Your task to perform on an android device: Do I have any events today? Image 0: 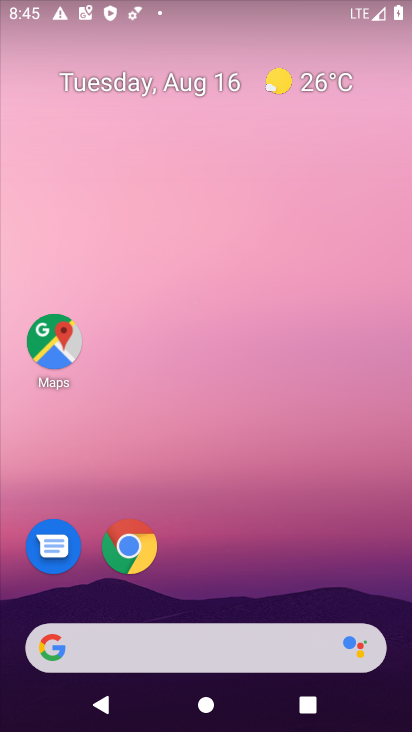
Step 0: drag from (232, 589) to (162, 7)
Your task to perform on an android device: Do I have any events today? Image 1: 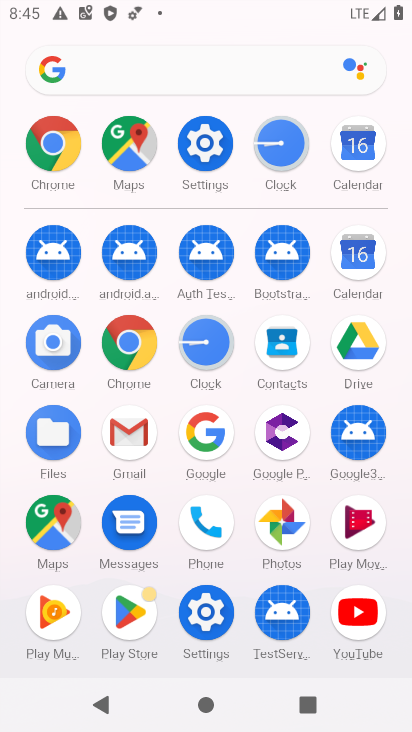
Step 1: click (351, 145)
Your task to perform on an android device: Do I have any events today? Image 2: 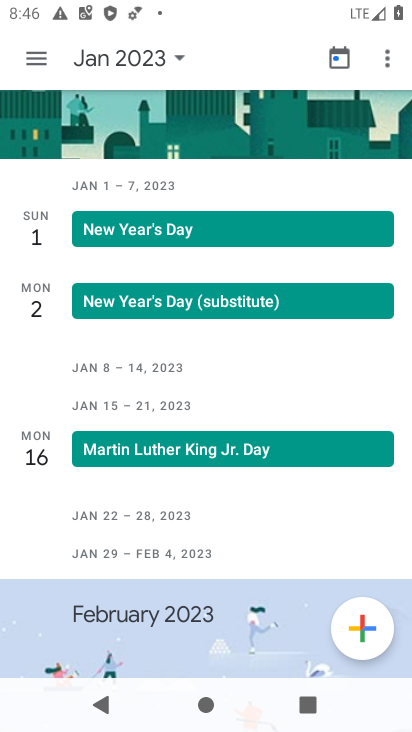
Step 2: click (38, 52)
Your task to perform on an android device: Do I have any events today? Image 3: 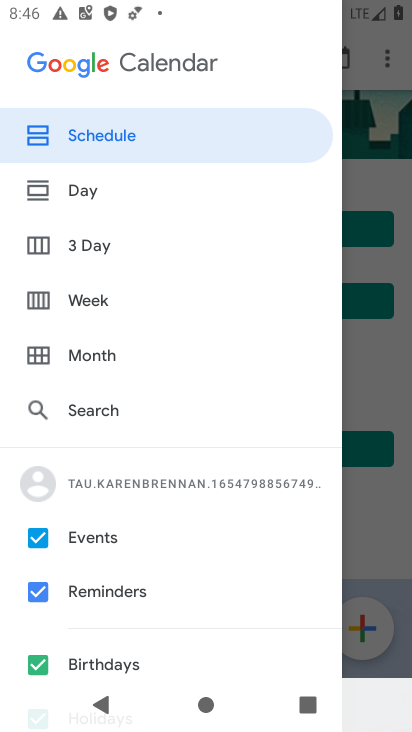
Step 3: click (32, 177)
Your task to perform on an android device: Do I have any events today? Image 4: 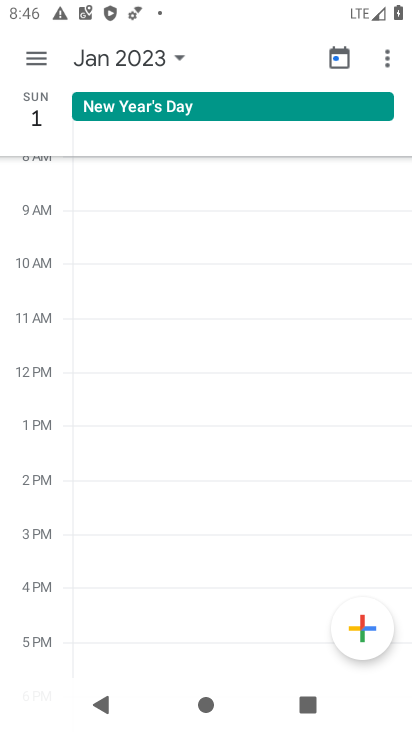
Step 4: click (32, 53)
Your task to perform on an android device: Do I have any events today? Image 5: 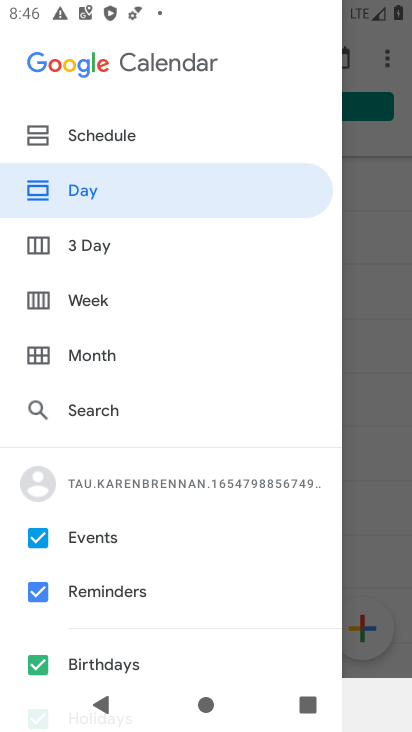
Step 5: click (36, 348)
Your task to perform on an android device: Do I have any events today? Image 6: 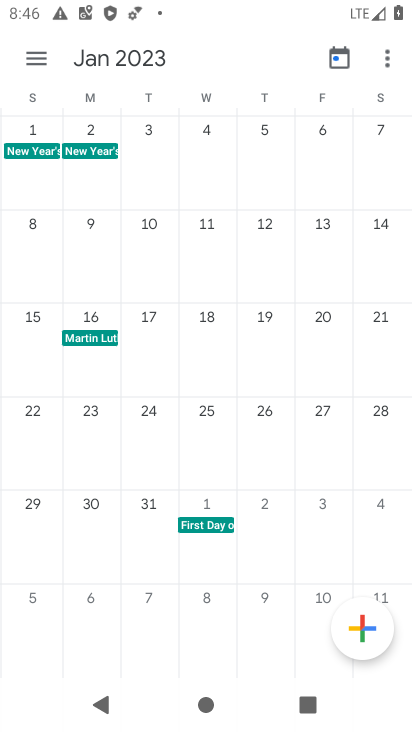
Step 6: drag from (113, 345) to (403, 362)
Your task to perform on an android device: Do I have any events today? Image 7: 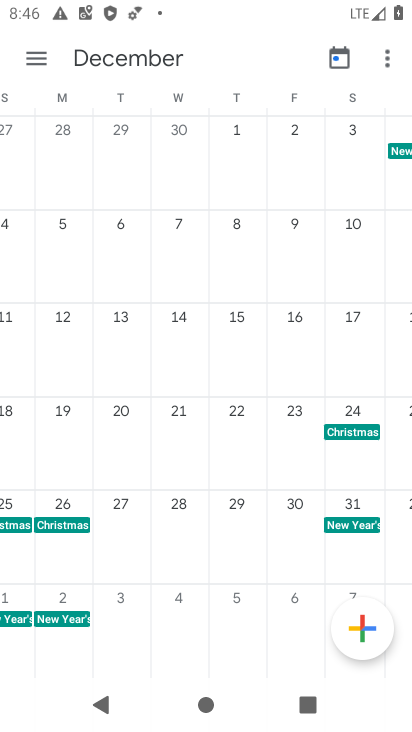
Step 7: drag from (104, 274) to (405, 327)
Your task to perform on an android device: Do I have any events today? Image 8: 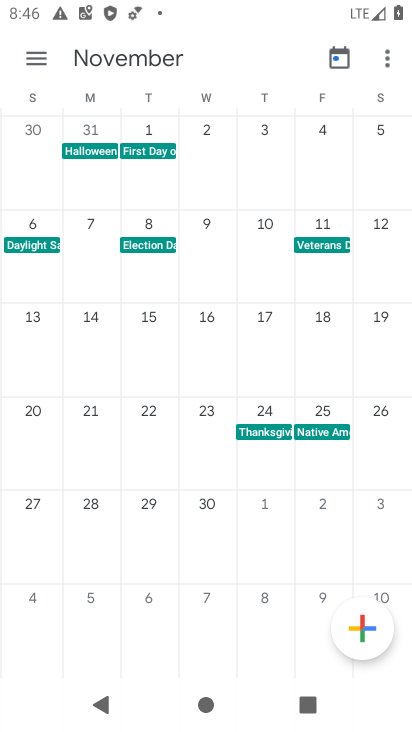
Step 8: drag from (127, 292) to (411, 344)
Your task to perform on an android device: Do I have any events today? Image 9: 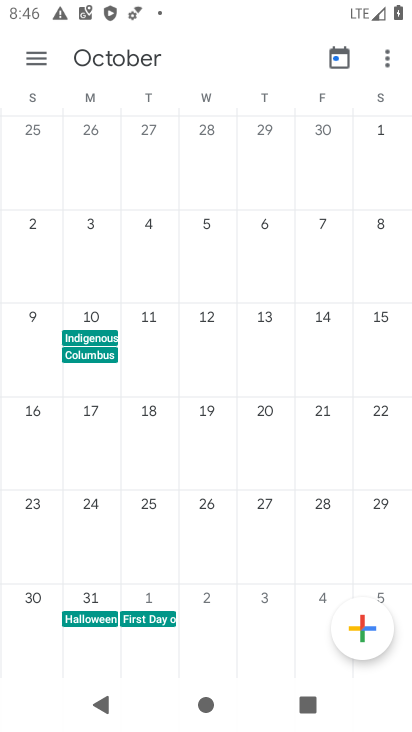
Step 9: drag from (111, 291) to (392, 317)
Your task to perform on an android device: Do I have any events today? Image 10: 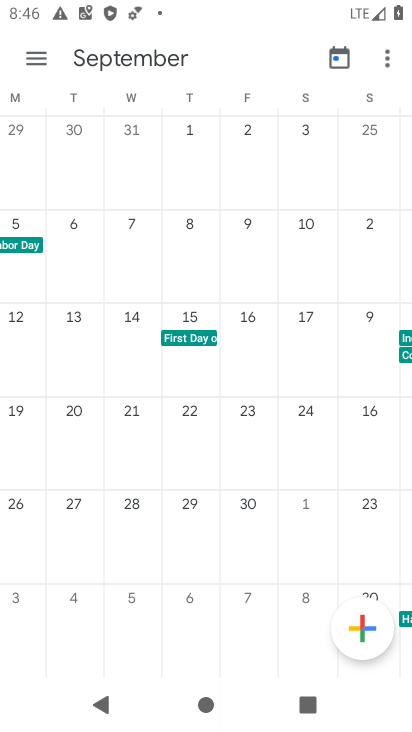
Step 10: drag from (107, 251) to (408, 277)
Your task to perform on an android device: Do I have any events today? Image 11: 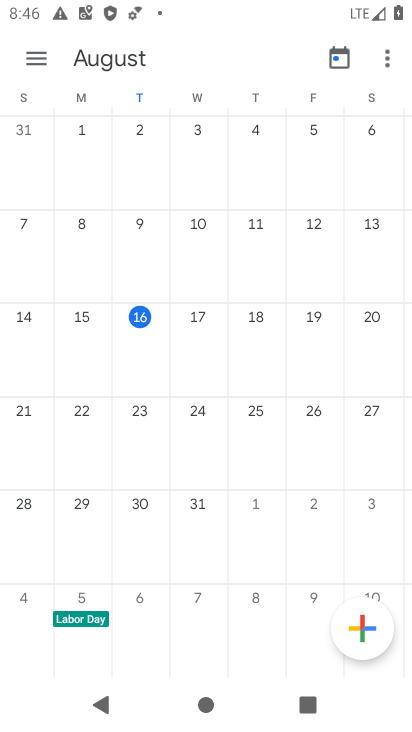
Step 11: drag from (138, 264) to (364, 284)
Your task to perform on an android device: Do I have any events today? Image 12: 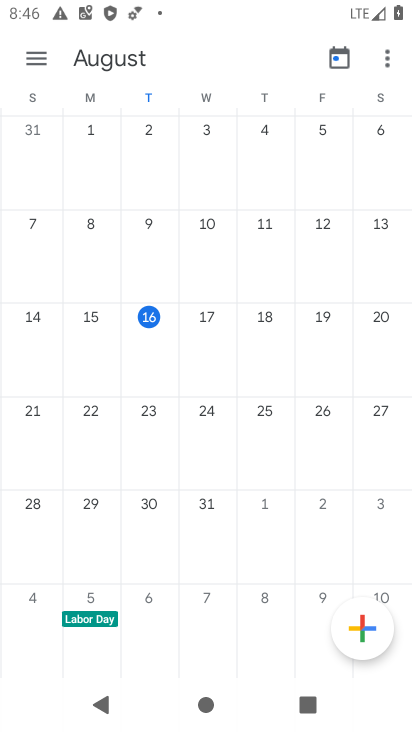
Step 12: click (157, 316)
Your task to perform on an android device: Do I have any events today? Image 13: 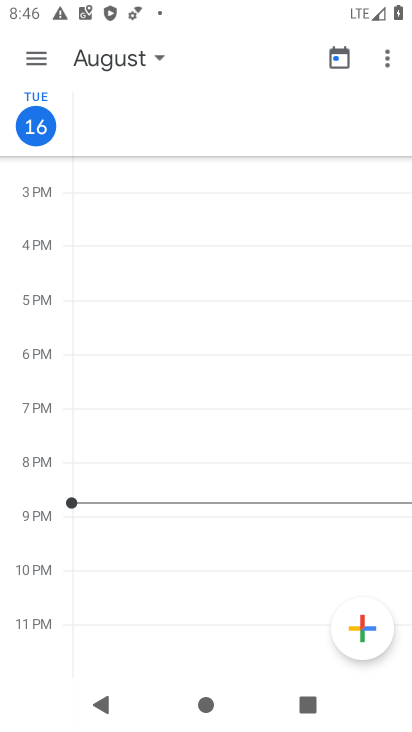
Step 13: task complete